Your task to perform on an android device: check data usage Image 0: 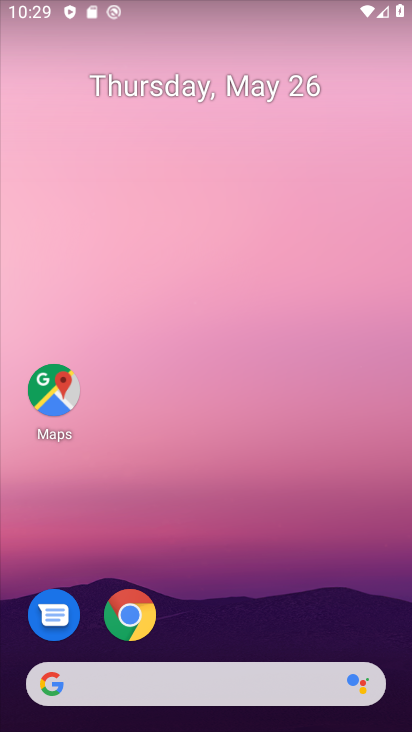
Step 0: drag from (332, 573) to (320, 175)
Your task to perform on an android device: check data usage Image 1: 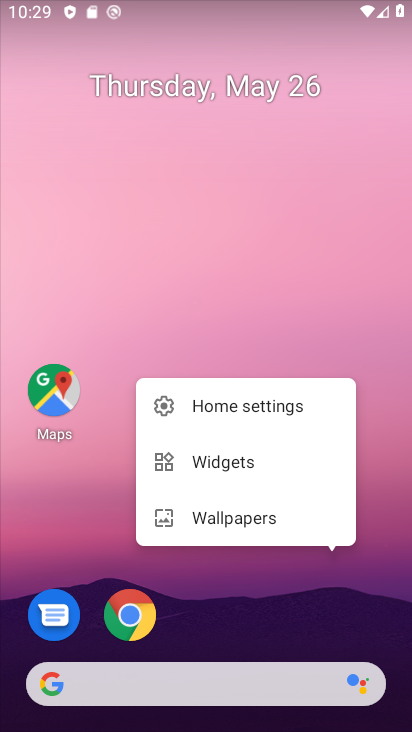
Step 1: click (371, 602)
Your task to perform on an android device: check data usage Image 2: 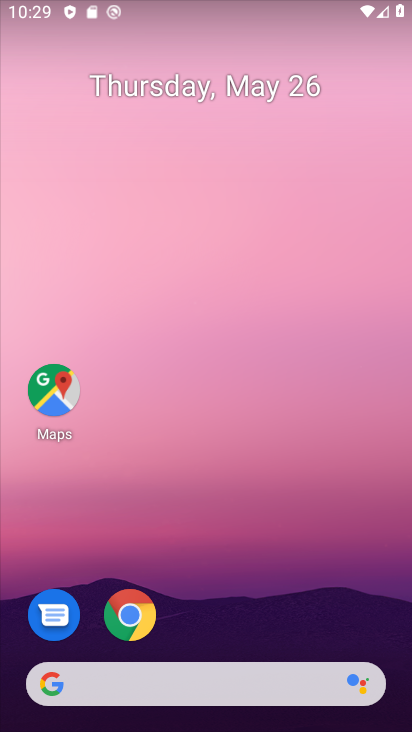
Step 2: drag from (349, 616) to (369, 289)
Your task to perform on an android device: check data usage Image 3: 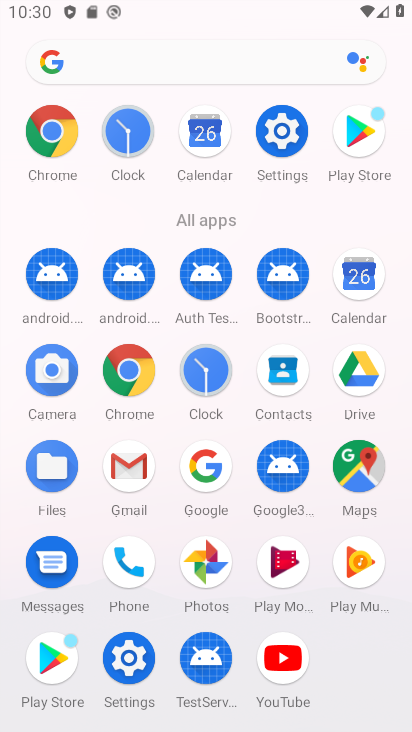
Step 3: click (292, 135)
Your task to perform on an android device: check data usage Image 4: 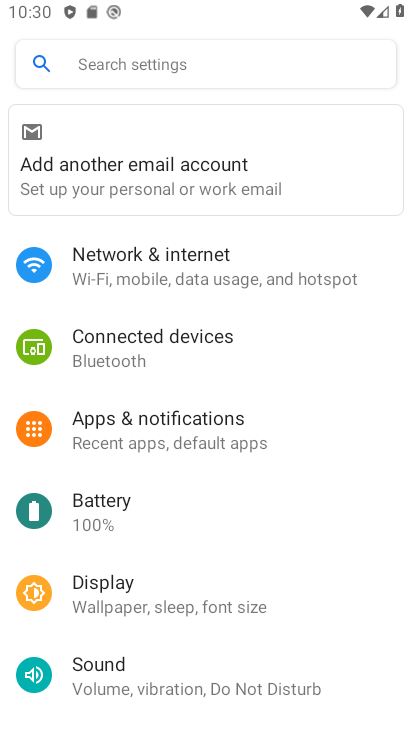
Step 4: click (243, 260)
Your task to perform on an android device: check data usage Image 5: 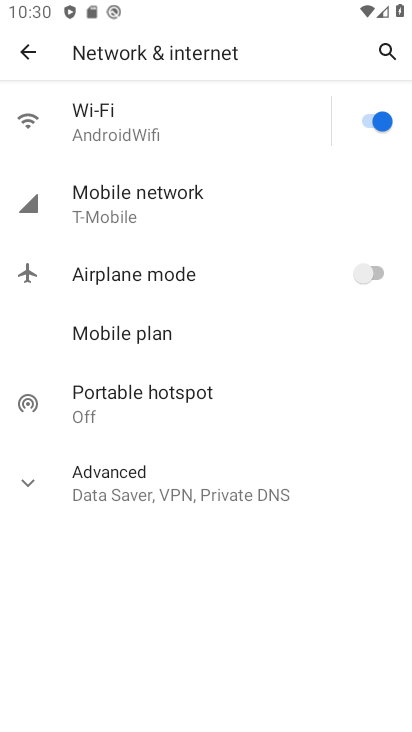
Step 5: click (226, 208)
Your task to perform on an android device: check data usage Image 6: 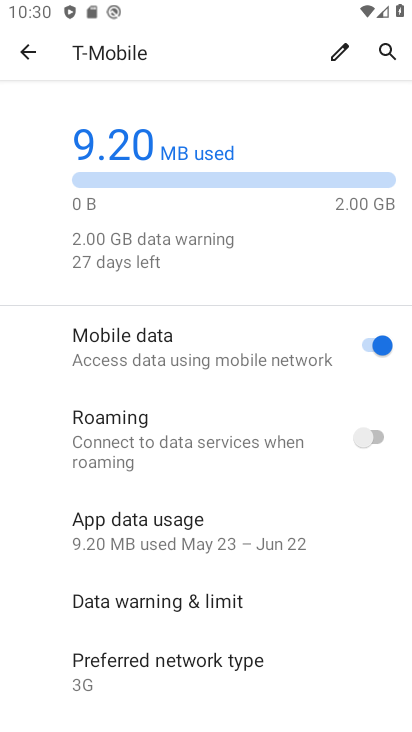
Step 6: task complete